Your task to perform on an android device: Go to Reddit.com Image 0: 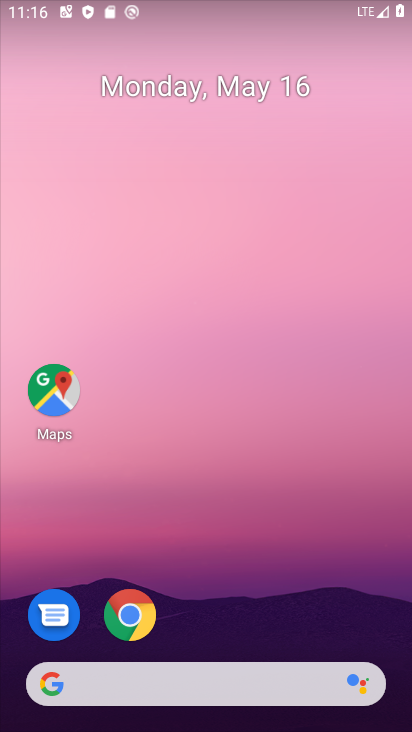
Step 0: click (130, 631)
Your task to perform on an android device: Go to Reddit.com Image 1: 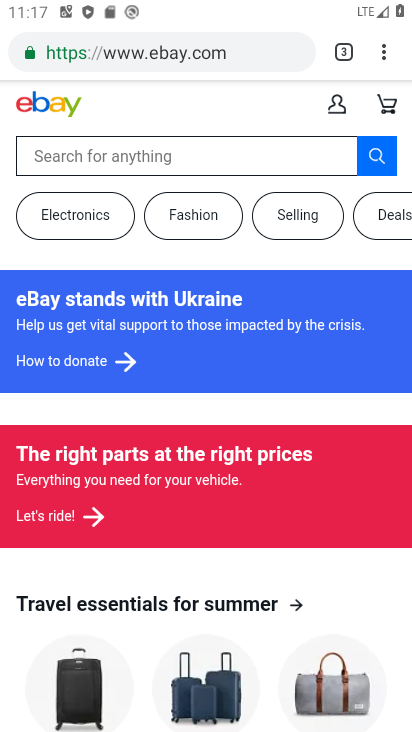
Step 1: click (299, 38)
Your task to perform on an android device: Go to Reddit.com Image 2: 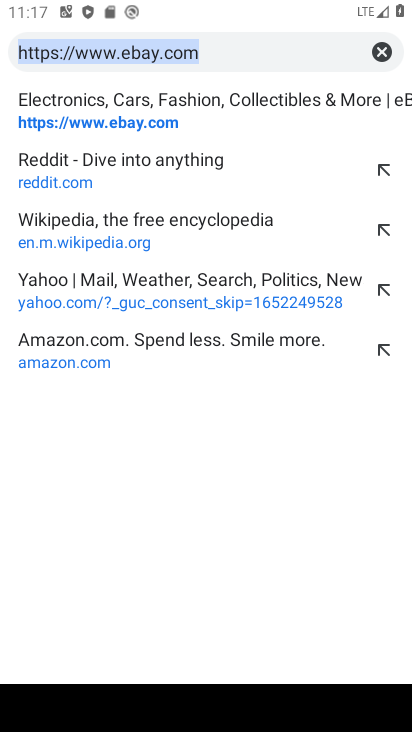
Step 2: click (63, 190)
Your task to perform on an android device: Go to Reddit.com Image 3: 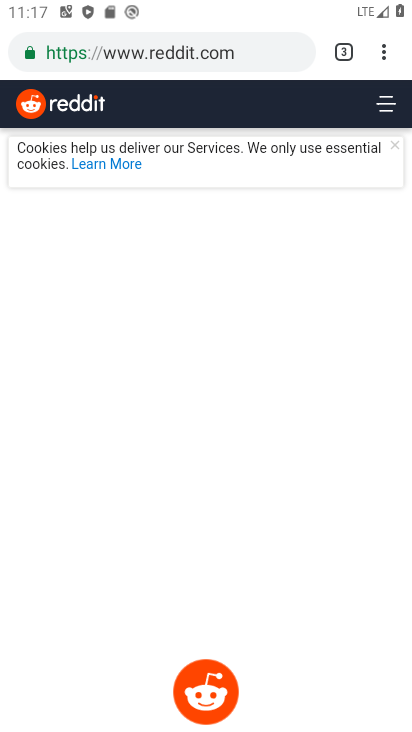
Step 3: task complete